Your task to perform on an android device: turn on priority inbox in the gmail app Image 0: 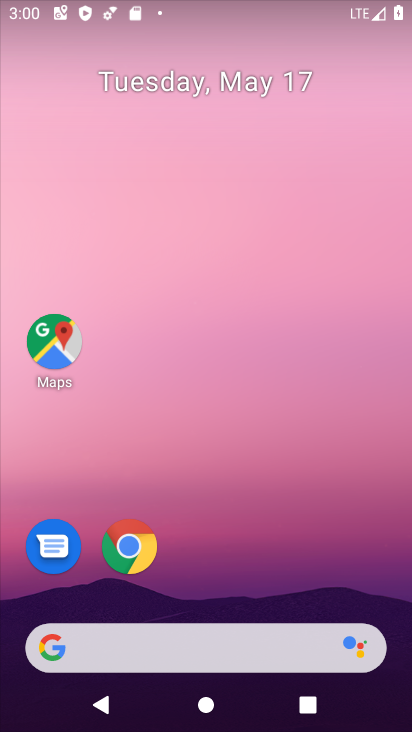
Step 0: drag from (302, 597) to (305, 96)
Your task to perform on an android device: turn on priority inbox in the gmail app Image 1: 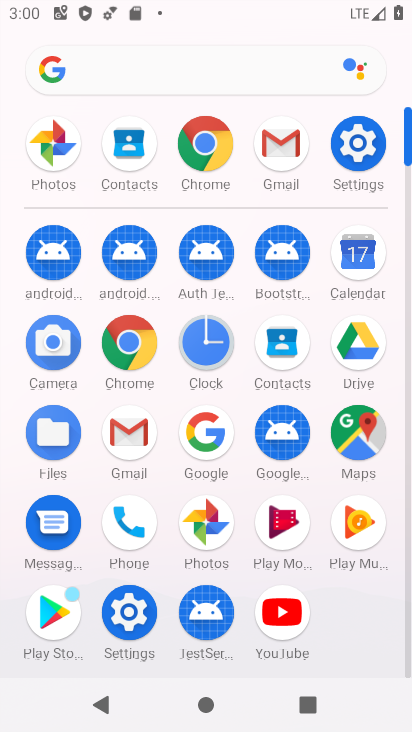
Step 1: click (295, 151)
Your task to perform on an android device: turn on priority inbox in the gmail app Image 2: 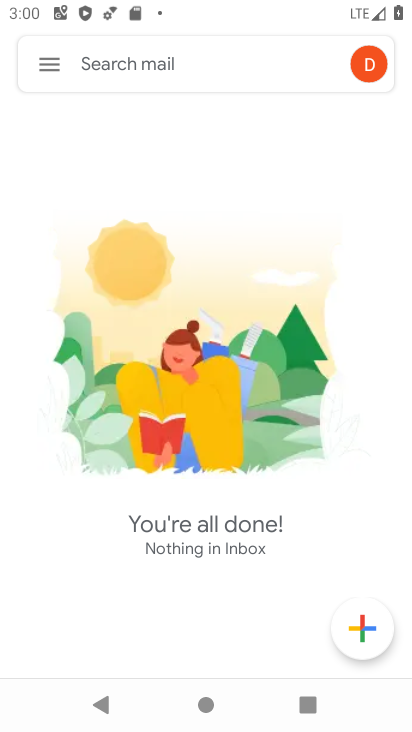
Step 2: click (43, 81)
Your task to perform on an android device: turn on priority inbox in the gmail app Image 3: 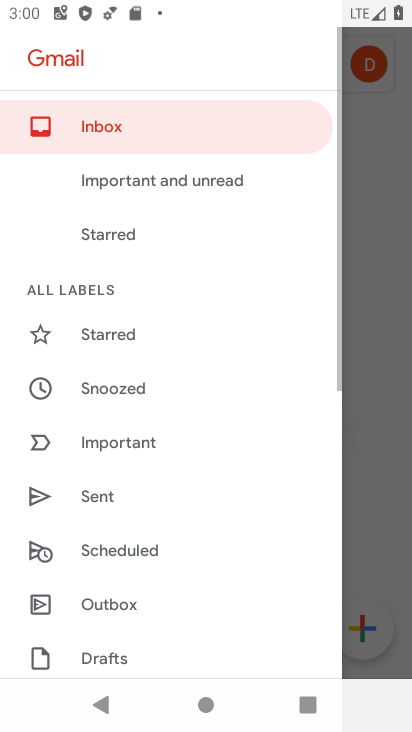
Step 3: drag from (160, 566) to (376, 0)
Your task to perform on an android device: turn on priority inbox in the gmail app Image 4: 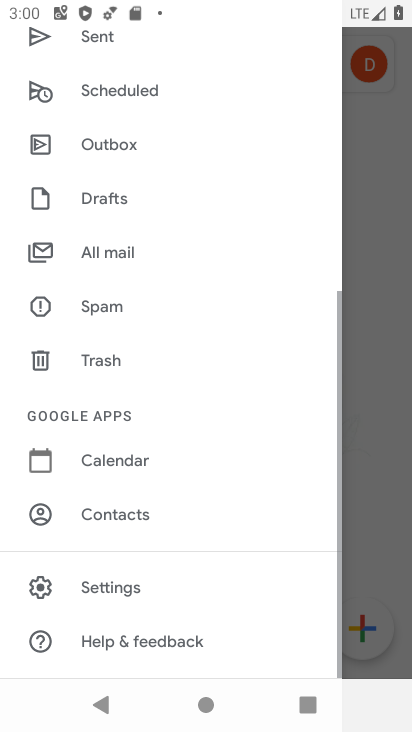
Step 4: click (114, 569)
Your task to perform on an android device: turn on priority inbox in the gmail app Image 5: 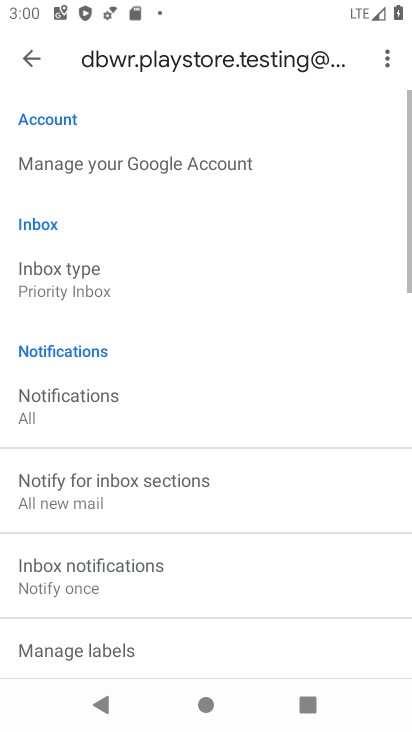
Step 5: click (90, 284)
Your task to perform on an android device: turn on priority inbox in the gmail app Image 6: 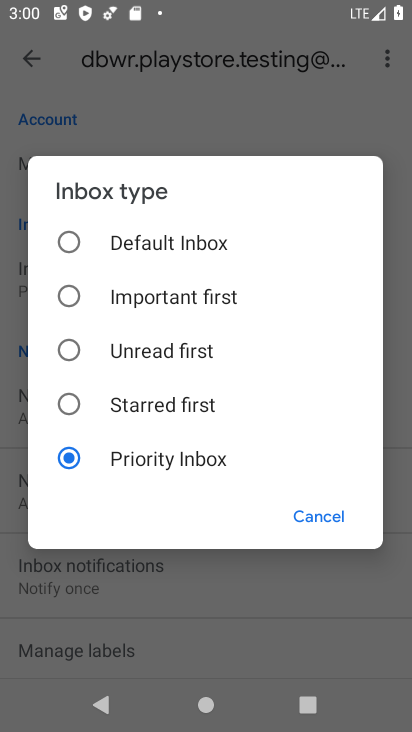
Step 6: click (116, 450)
Your task to perform on an android device: turn on priority inbox in the gmail app Image 7: 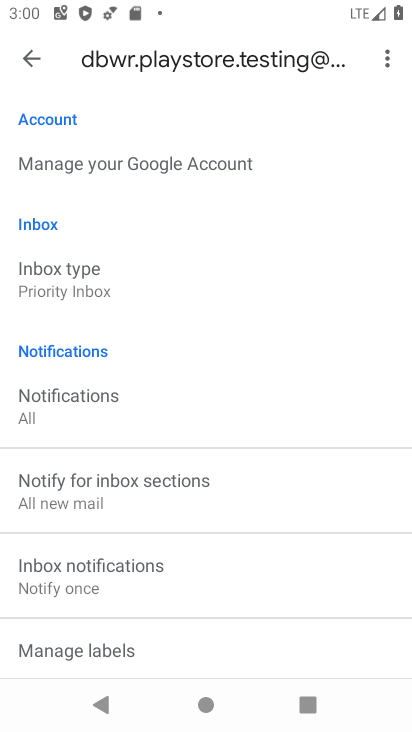
Step 7: task complete